Your task to perform on an android device: find which apps use the phone's location Image 0: 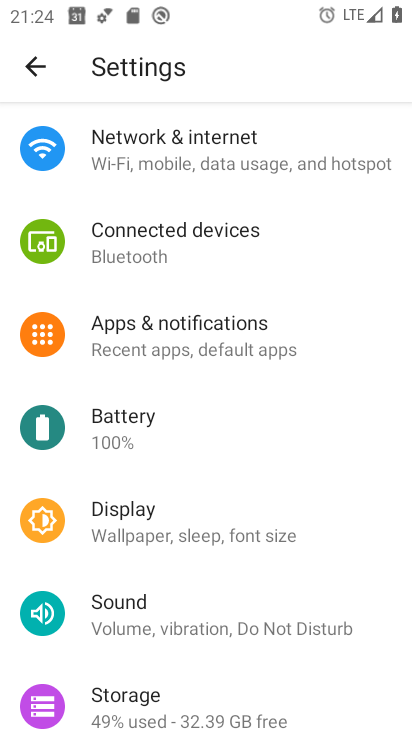
Step 0: drag from (247, 530) to (223, 237)
Your task to perform on an android device: find which apps use the phone's location Image 1: 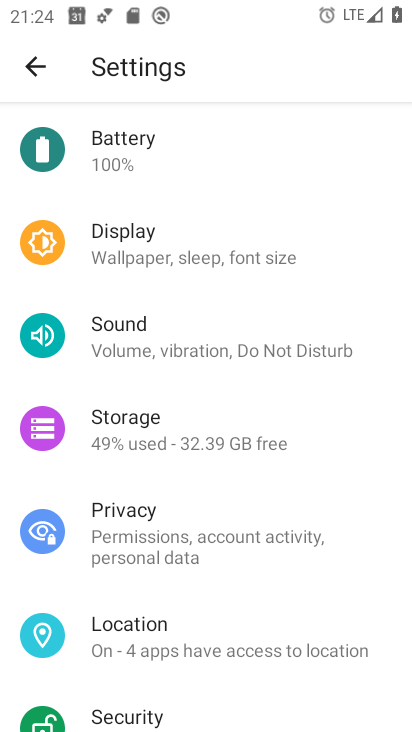
Step 1: click (239, 633)
Your task to perform on an android device: find which apps use the phone's location Image 2: 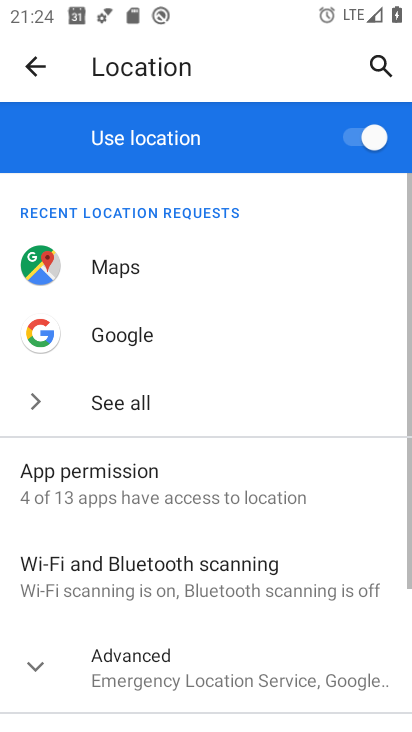
Step 2: click (121, 472)
Your task to perform on an android device: find which apps use the phone's location Image 3: 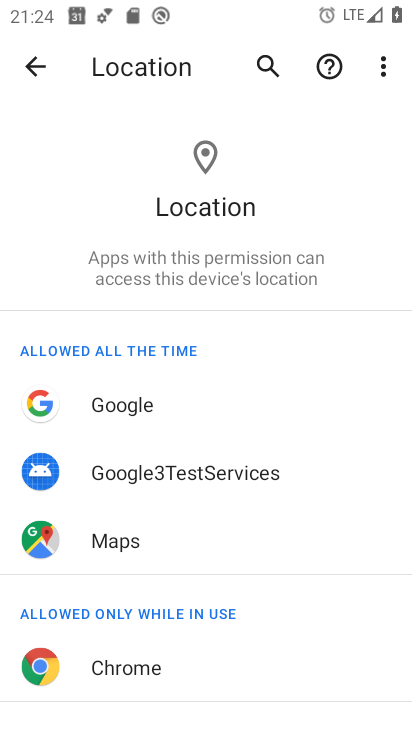
Step 3: task complete